Your task to perform on an android device: remove spam from my inbox in the gmail app Image 0: 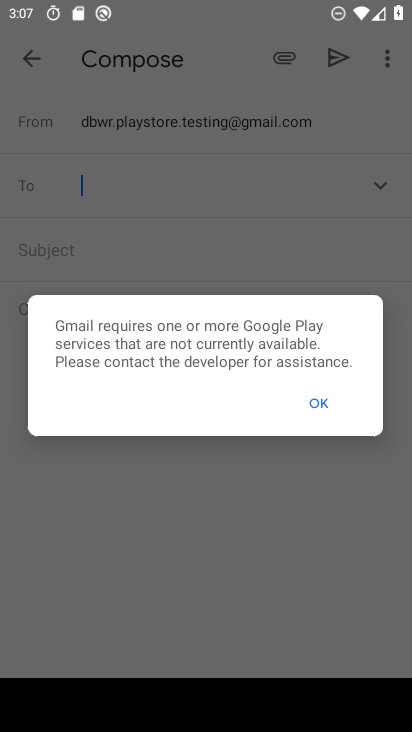
Step 0: click (314, 399)
Your task to perform on an android device: remove spam from my inbox in the gmail app Image 1: 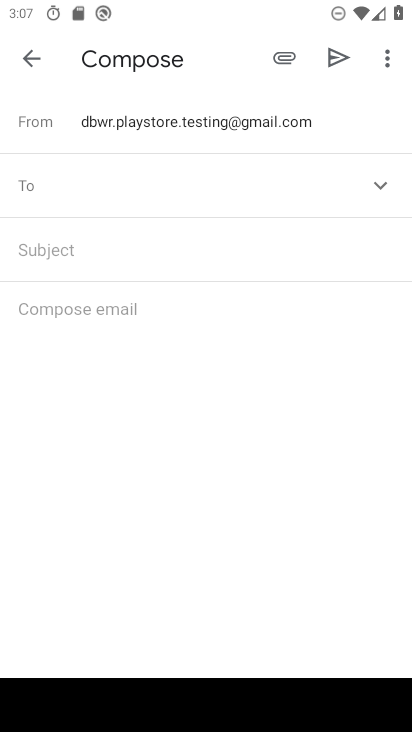
Step 1: drag from (155, 401) to (224, 178)
Your task to perform on an android device: remove spam from my inbox in the gmail app Image 2: 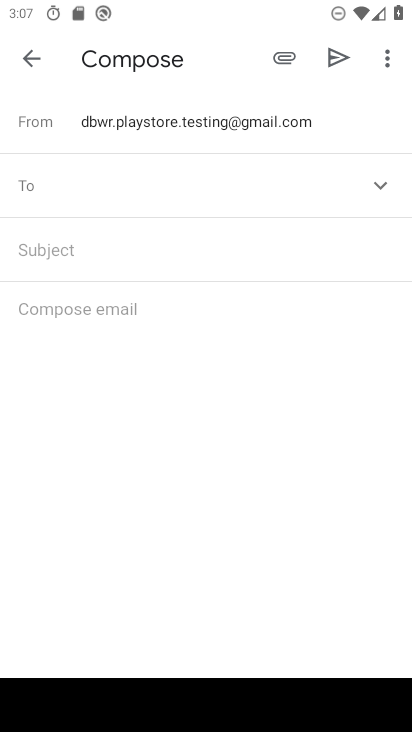
Step 2: press back button
Your task to perform on an android device: remove spam from my inbox in the gmail app Image 3: 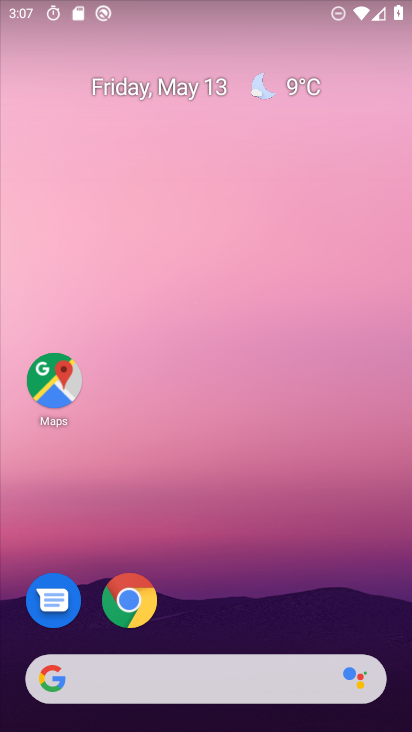
Step 3: drag from (174, 616) to (208, 130)
Your task to perform on an android device: remove spam from my inbox in the gmail app Image 4: 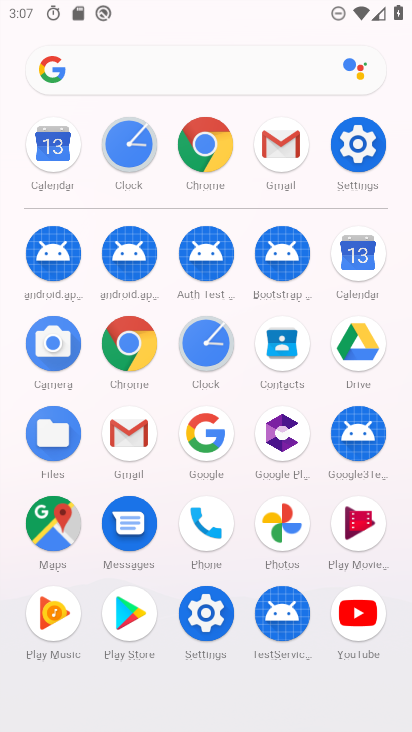
Step 4: click (133, 432)
Your task to perform on an android device: remove spam from my inbox in the gmail app Image 5: 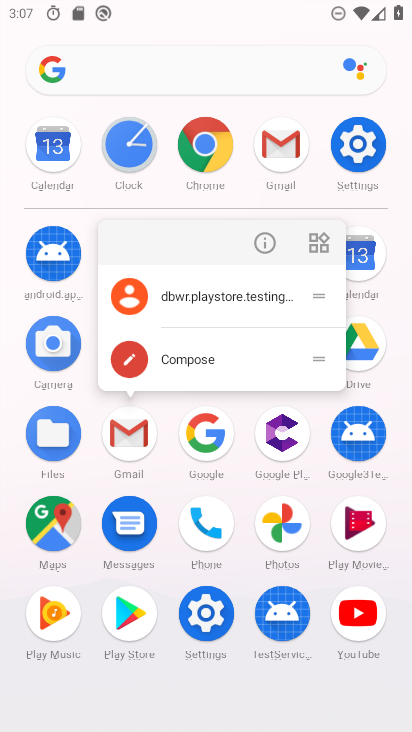
Step 5: click (268, 226)
Your task to perform on an android device: remove spam from my inbox in the gmail app Image 6: 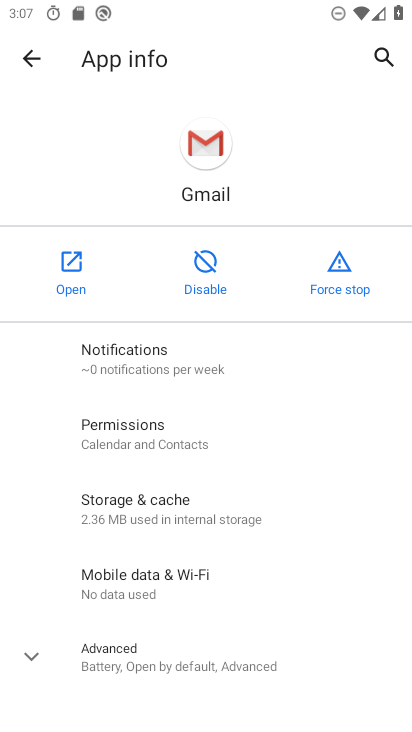
Step 6: click (89, 290)
Your task to perform on an android device: remove spam from my inbox in the gmail app Image 7: 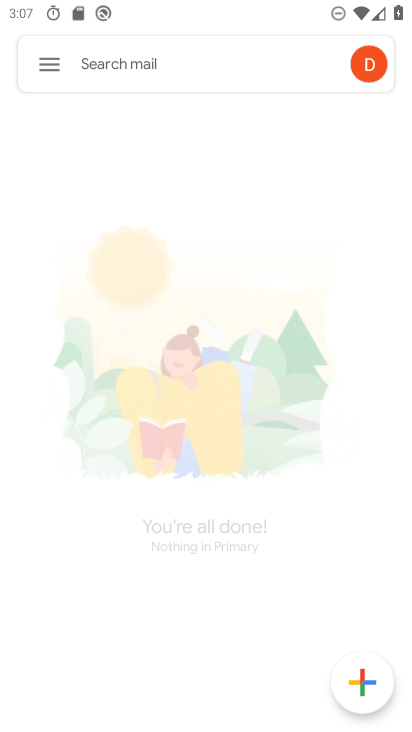
Step 7: click (68, 56)
Your task to perform on an android device: remove spam from my inbox in the gmail app Image 8: 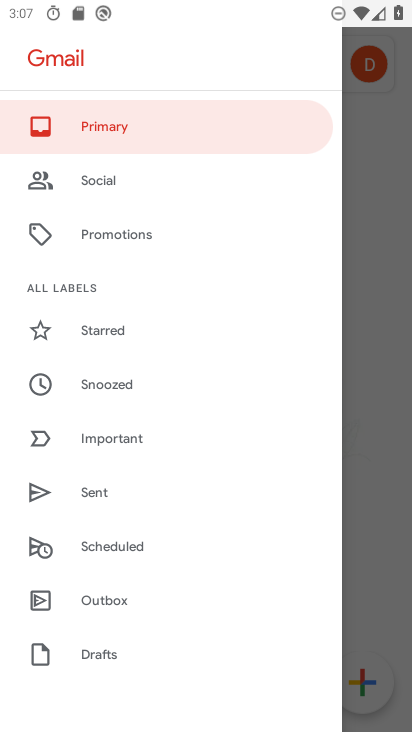
Step 8: drag from (133, 606) to (195, 47)
Your task to perform on an android device: remove spam from my inbox in the gmail app Image 9: 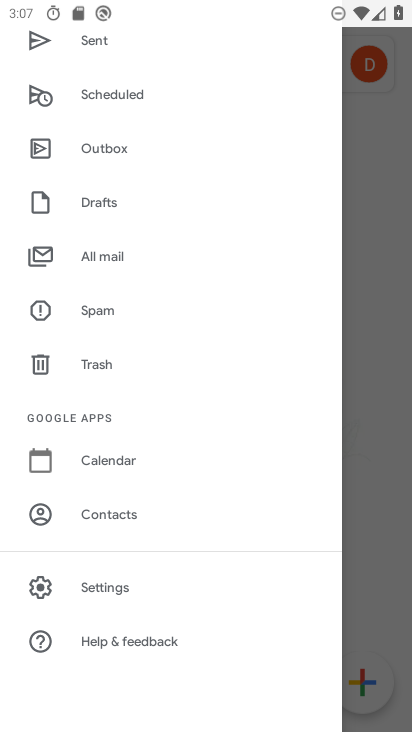
Step 9: click (120, 305)
Your task to perform on an android device: remove spam from my inbox in the gmail app Image 10: 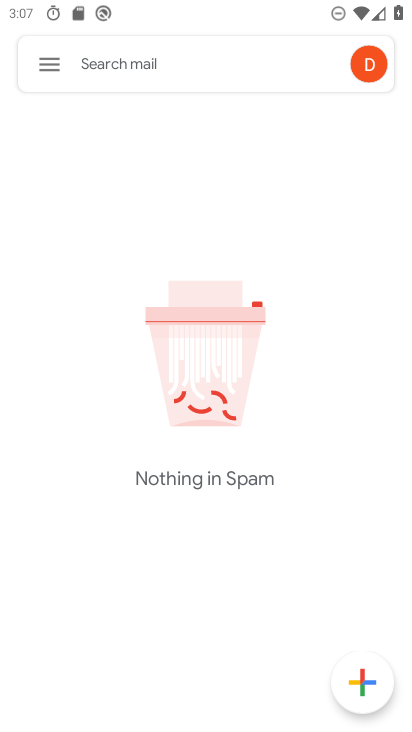
Step 10: task complete